Your task to perform on an android device: turn pop-ups off in chrome Image 0: 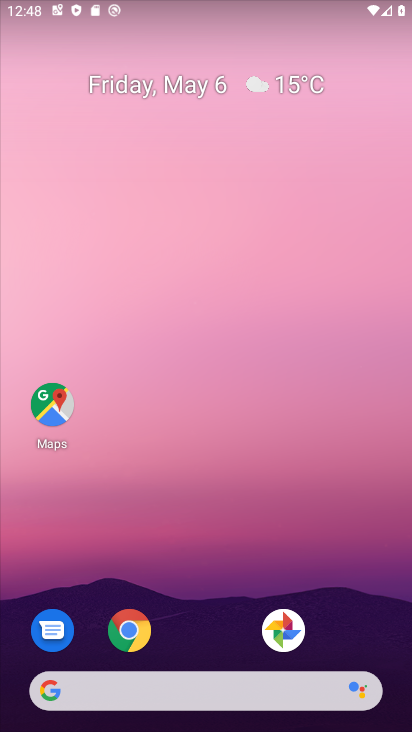
Step 0: drag from (201, 601) to (184, 529)
Your task to perform on an android device: turn pop-ups off in chrome Image 1: 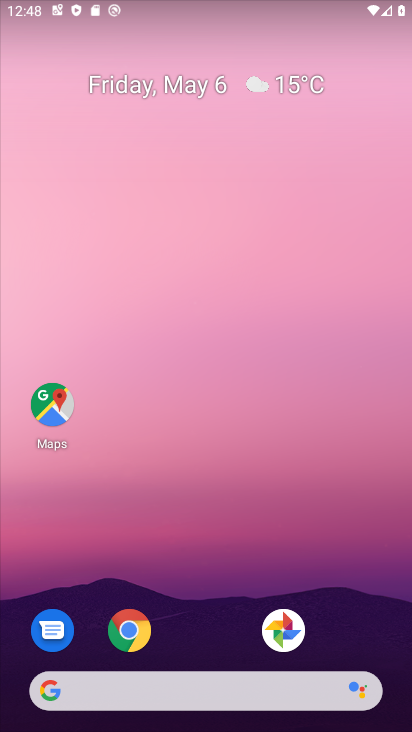
Step 1: click (133, 646)
Your task to perform on an android device: turn pop-ups off in chrome Image 2: 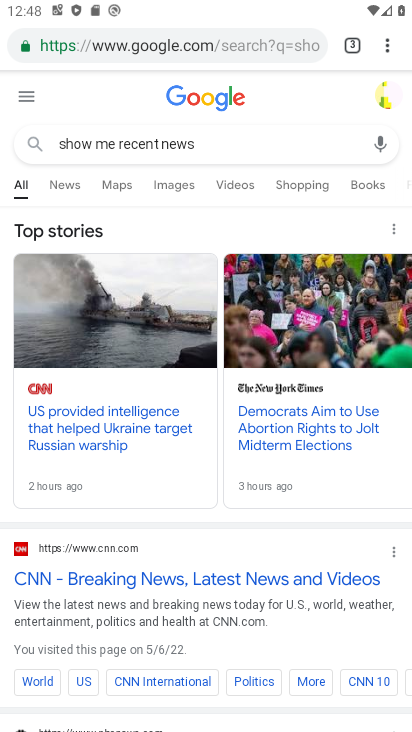
Step 2: drag from (383, 45) to (273, 513)
Your task to perform on an android device: turn pop-ups off in chrome Image 3: 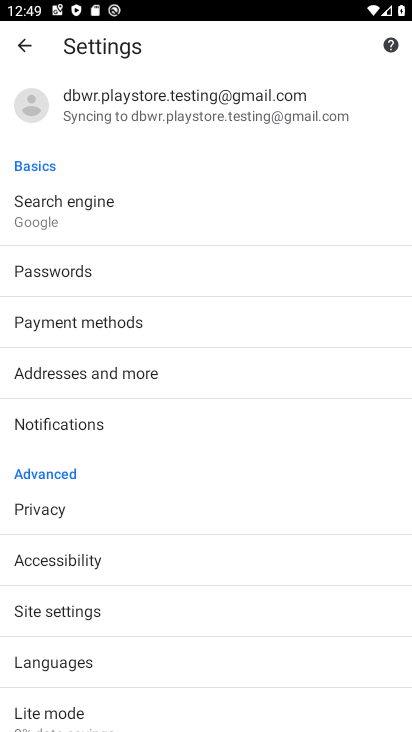
Step 3: click (118, 624)
Your task to perform on an android device: turn pop-ups off in chrome Image 4: 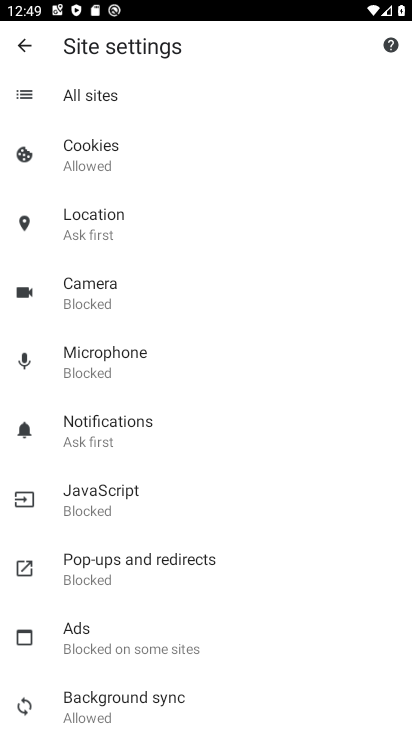
Step 4: click (240, 551)
Your task to perform on an android device: turn pop-ups off in chrome Image 5: 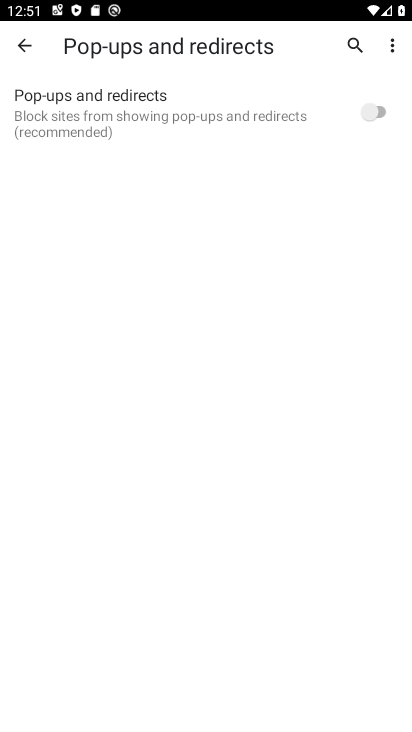
Step 5: click (361, 106)
Your task to perform on an android device: turn pop-ups off in chrome Image 6: 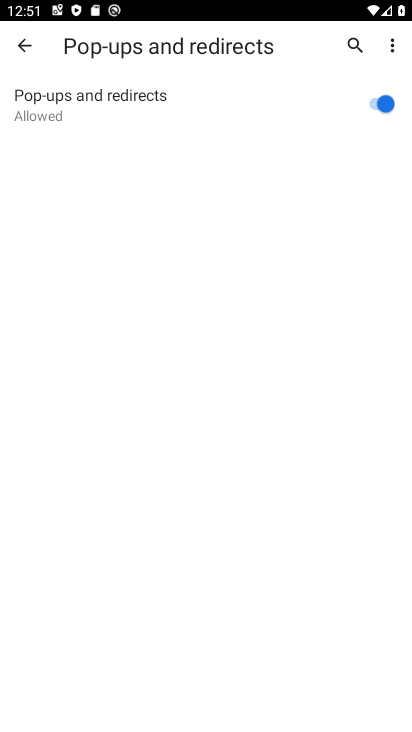
Step 6: click (383, 105)
Your task to perform on an android device: turn pop-ups off in chrome Image 7: 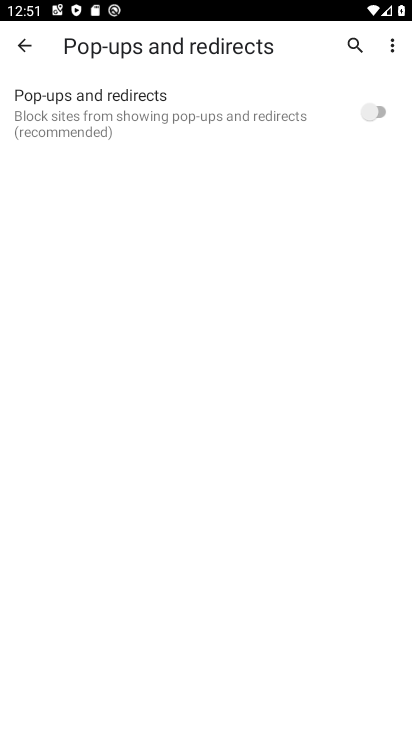
Step 7: task complete